Your task to perform on an android device: check storage Image 0: 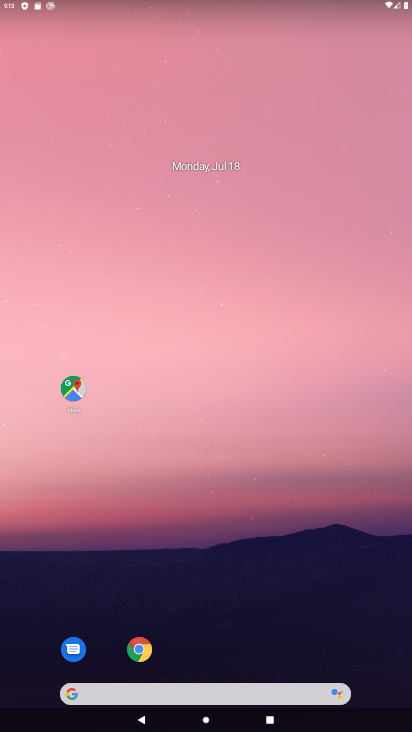
Step 0: drag from (53, 547) to (192, 89)
Your task to perform on an android device: check storage Image 1: 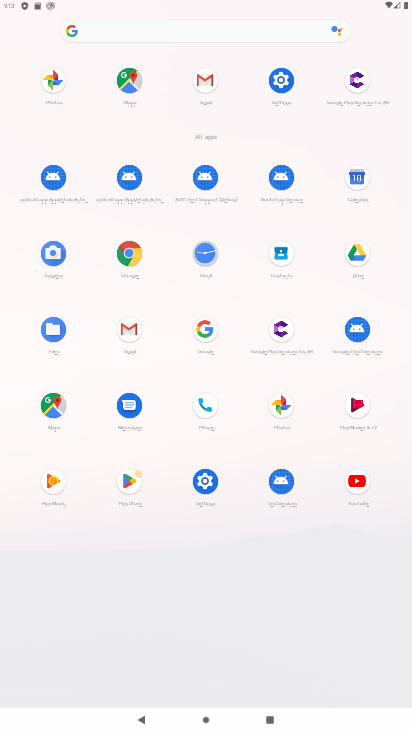
Step 1: click (295, 76)
Your task to perform on an android device: check storage Image 2: 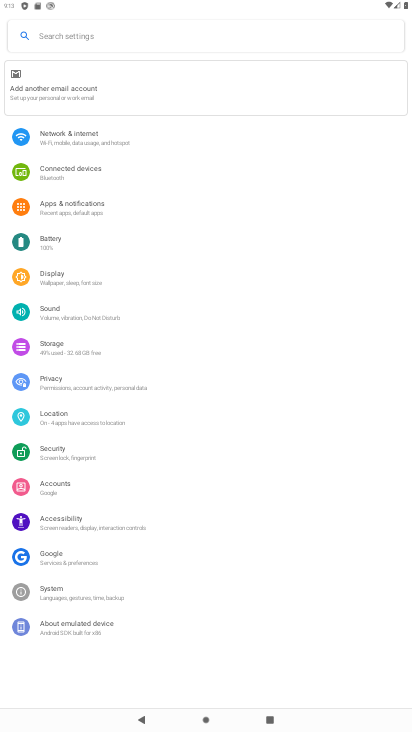
Step 2: task complete